Your task to perform on an android device: Check the weather Image 0: 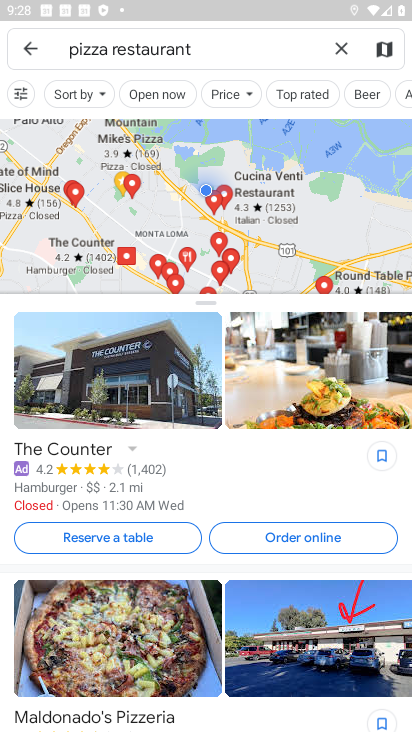
Step 0: press home button
Your task to perform on an android device: Check the weather Image 1: 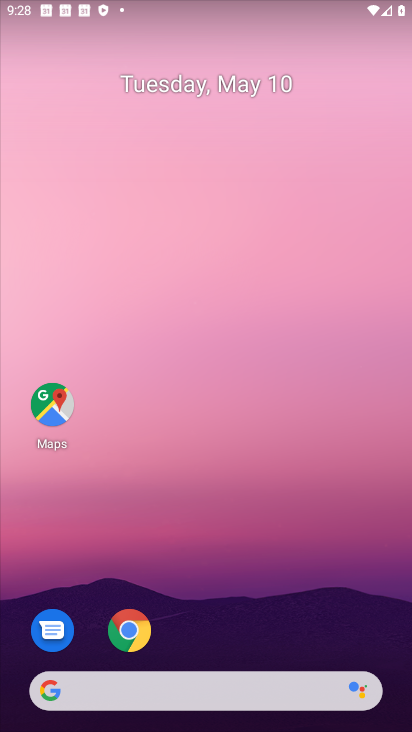
Step 1: click (176, 704)
Your task to perform on an android device: Check the weather Image 2: 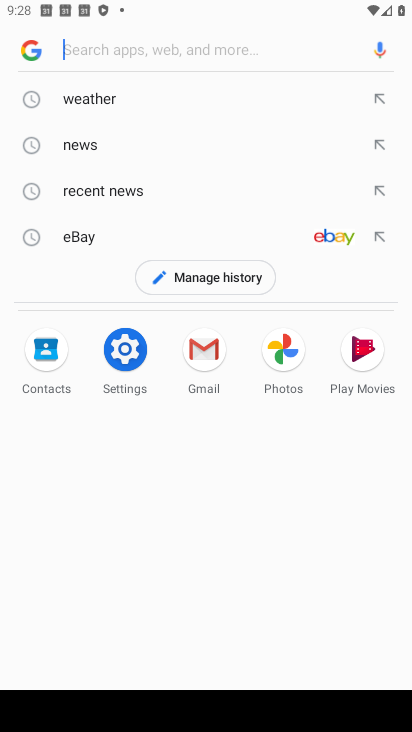
Step 2: click (154, 96)
Your task to perform on an android device: Check the weather Image 3: 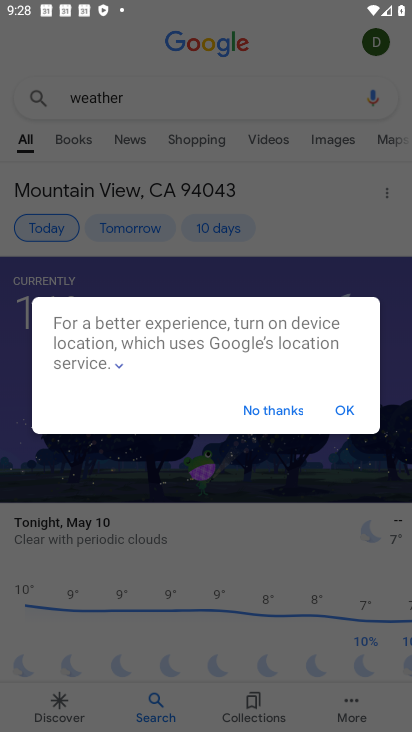
Step 3: click (271, 415)
Your task to perform on an android device: Check the weather Image 4: 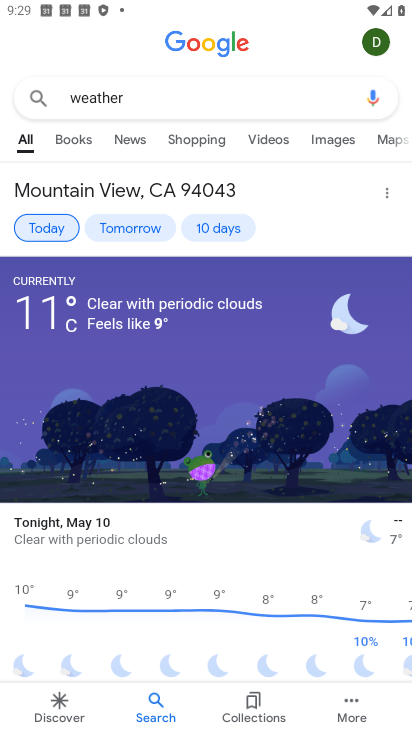
Step 4: task complete